Your task to perform on an android device: make emails show in primary in the gmail app Image 0: 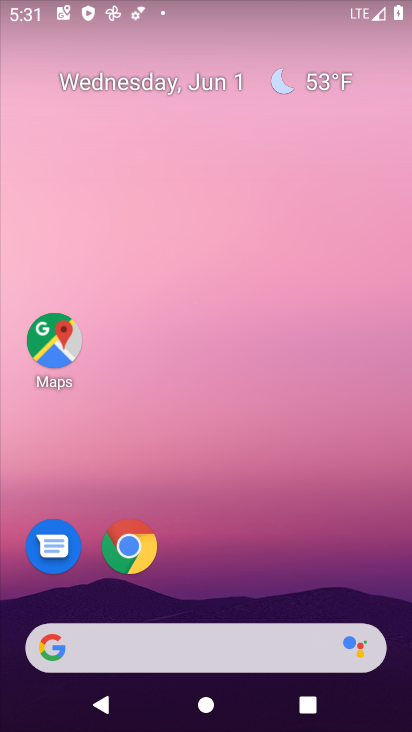
Step 0: drag from (274, 510) to (192, 0)
Your task to perform on an android device: make emails show in primary in the gmail app Image 1: 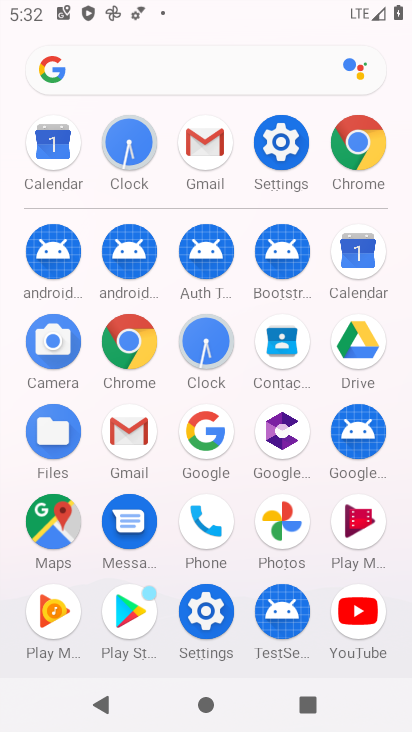
Step 1: drag from (4, 580) to (0, 216)
Your task to perform on an android device: make emails show in primary in the gmail app Image 2: 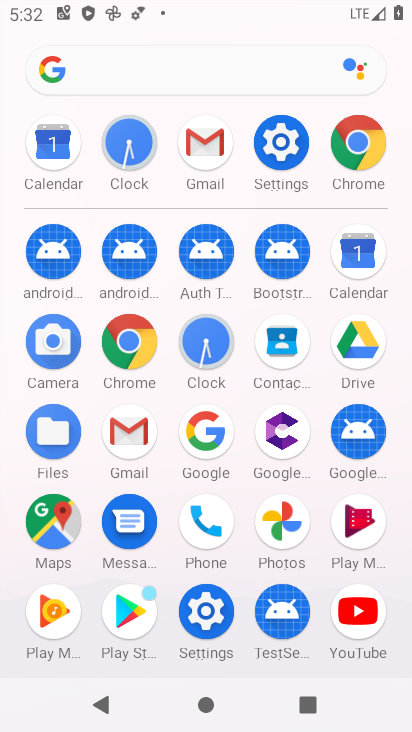
Step 2: click (126, 422)
Your task to perform on an android device: make emails show in primary in the gmail app Image 3: 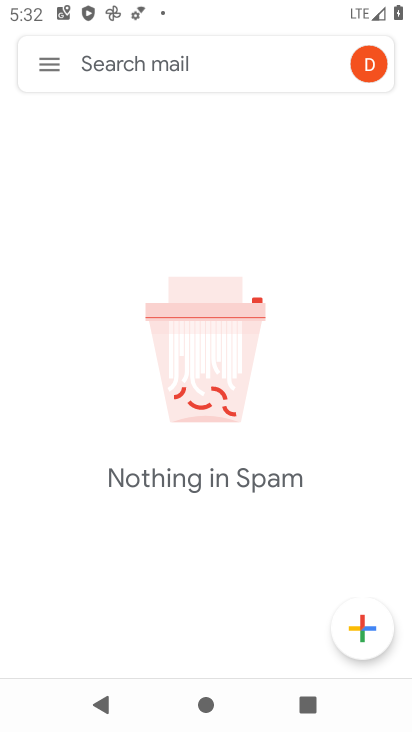
Step 3: click (47, 58)
Your task to perform on an android device: make emails show in primary in the gmail app Image 4: 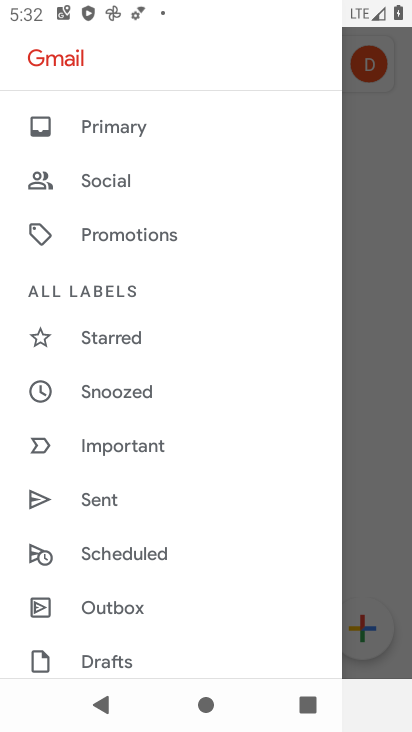
Step 4: drag from (125, 609) to (171, 165)
Your task to perform on an android device: make emails show in primary in the gmail app Image 5: 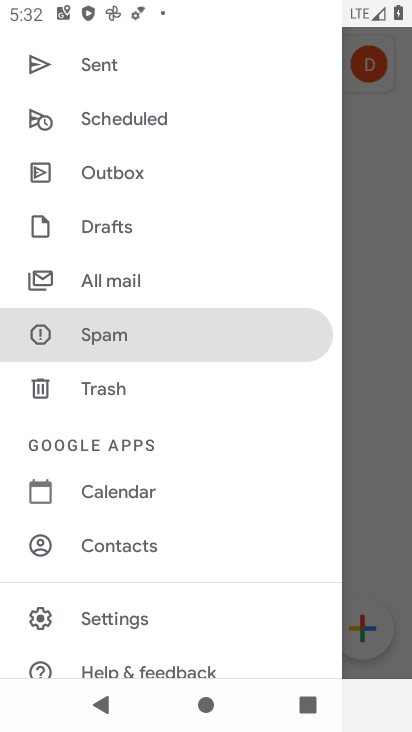
Step 5: click (123, 619)
Your task to perform on an android device: make emails show in primary in the gmail app Image 6: 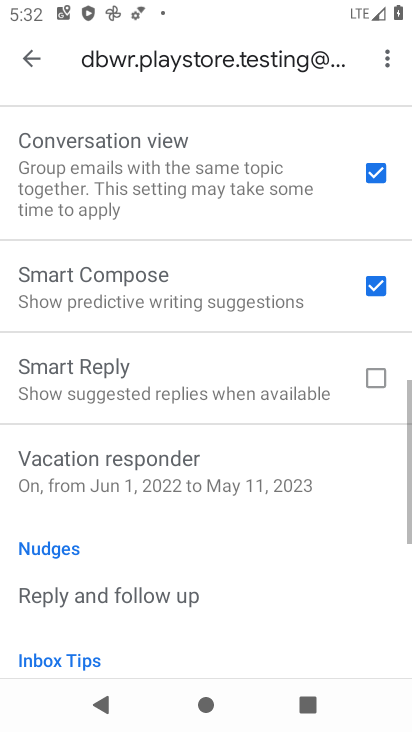
Step 6: drag from (207, 146) to (201, 613)
Your task to perform on an android device: make emails show in primary in the gmail app Image 7: 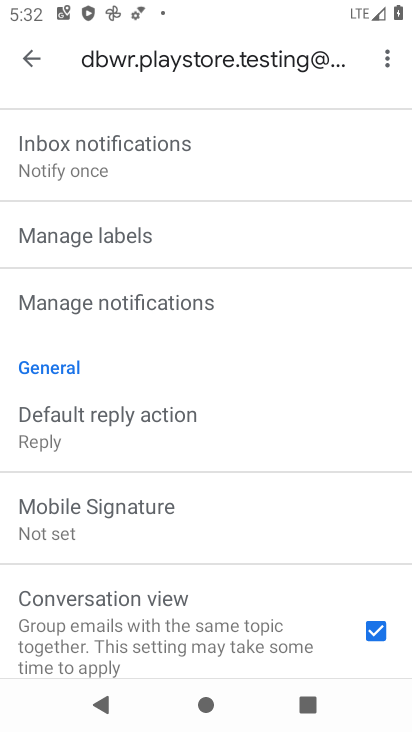
Step 7: drag from (237, 186) to (201, 659)
Your task to perform on an android device: make emails show in primary in the gmail app Image 8: 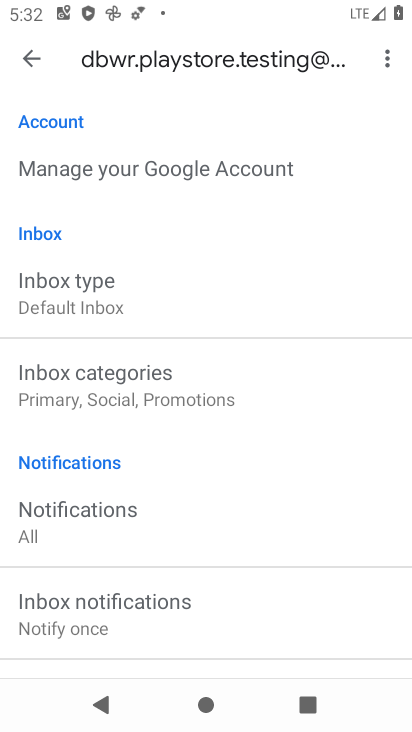
Step 8: click (145, 270)
Your task to perform on an android device: make emails show in primary in the gmail app Image 9: 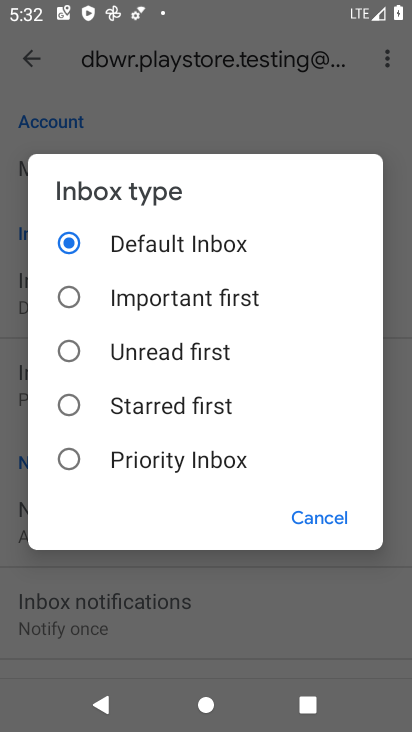
Step 9: click (158, 237)
Your task to perform on an android device: make emails show in primary in the gmail app Image 10: 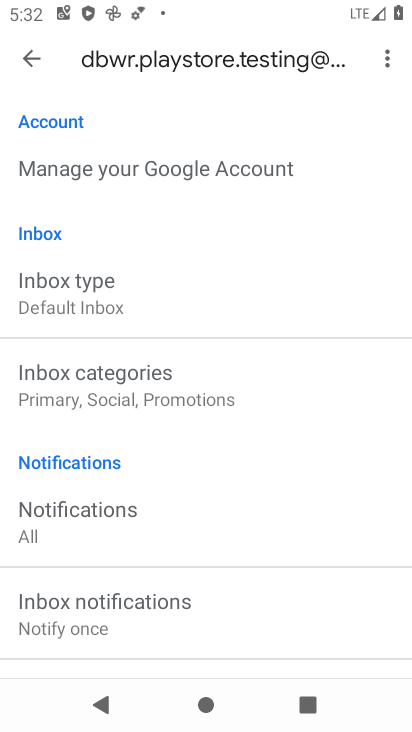
Step 10: click (106, 373)
Your task to perform on an android device: make emails show in primary in the gmail app Image 11: 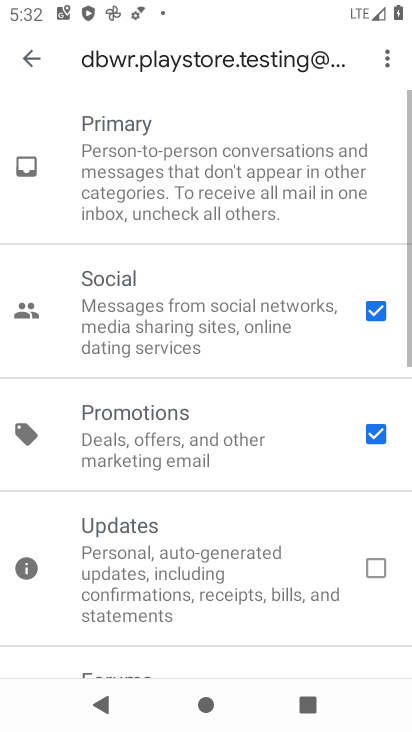
Step 11: click (381, 309)
Your task to perform on an android device: make emails show in primary in the gmail app Image 12: 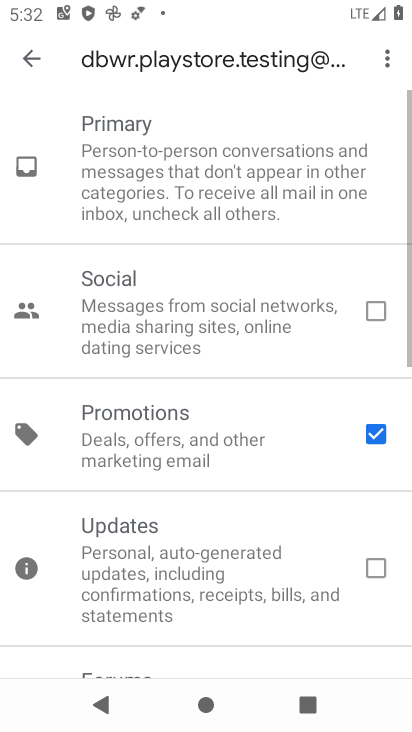
Step 12: click (374, 419)
Your task to perform on an android device: make emails show in primary in the gmail app Image 13: 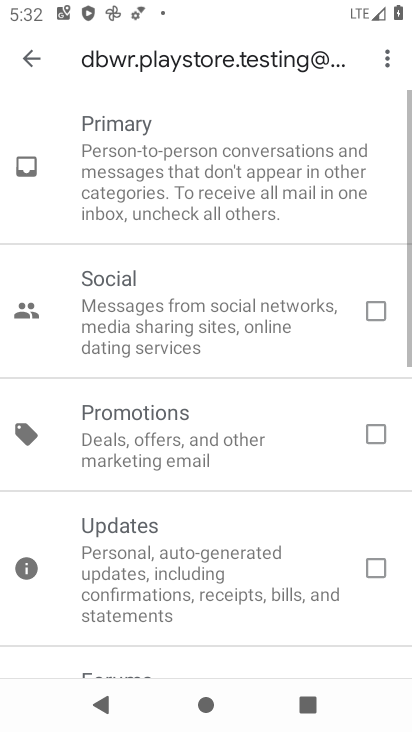
Step 13: click (26, 56)
Your task to perform on an android device: make emails show in primary in the gmail app Image 14: 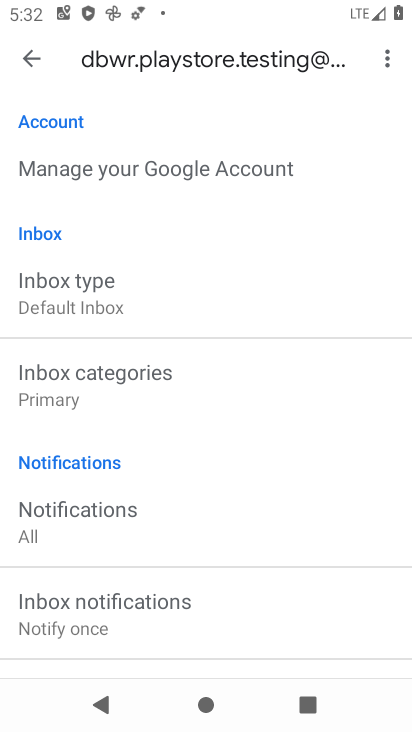
Step 14: task complete